Your task to perform on an android device: turn on wifi Image 0: 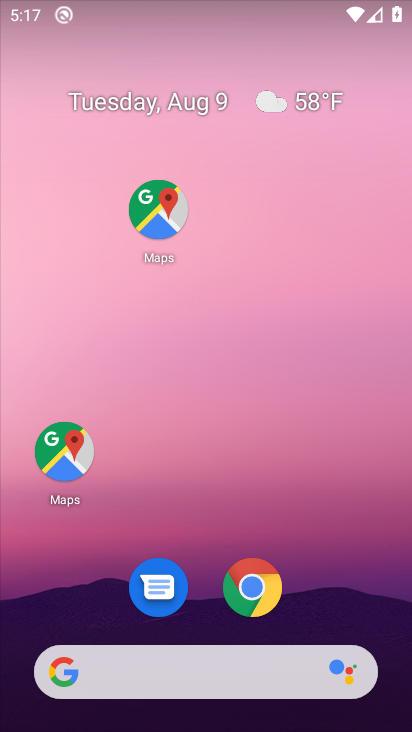
Step 0: drag from (184, 577) to (157, 205)
Your task to perform on an android device: turn on wifi Image 1: 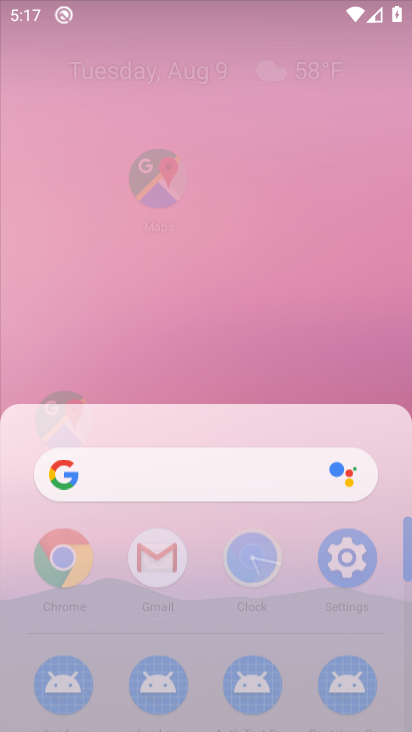
Step 1: drag from (226, 623) to (214, 175)
Your task to perform on an android device: turn on wifi Image 2: 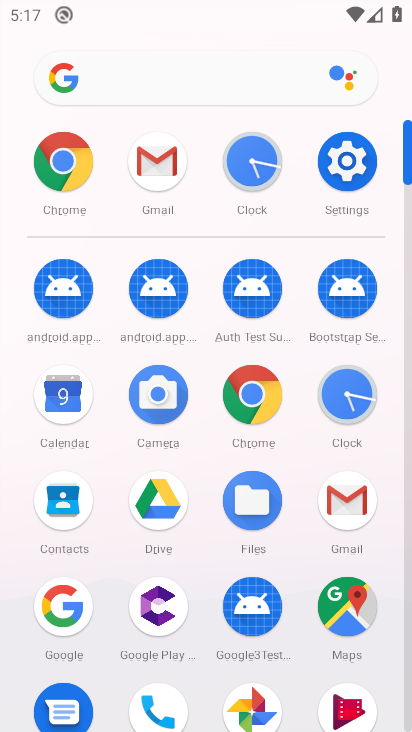
Step 2: drag from (366, 149) to (333, 163)
Your task to perform on an android device: turn on wifi Image 3: 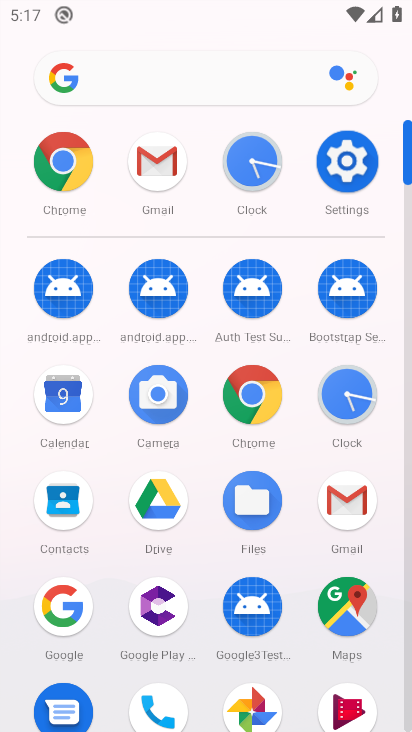
Step 3: click (333, 163)
Your task to perform on an android device: turn on wifi Image 4: 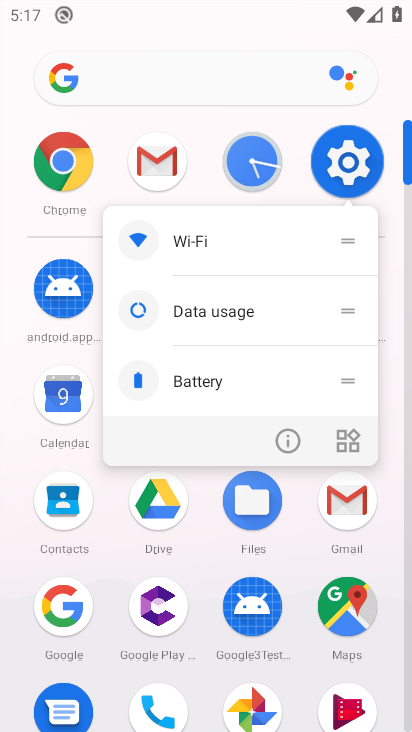
Step 4: click (335, 174)
Your task to perform on an android device: turn on wifi Image 5: 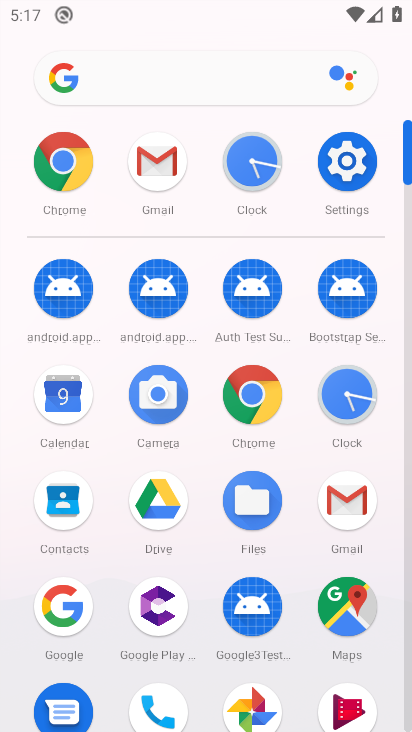
Step 5: click (331, 171)
Your task to perform on an android device: turn on wifi Image 6: 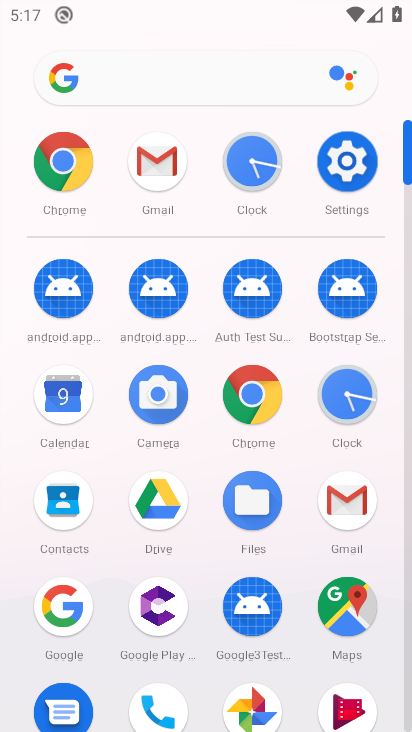
Step 6: click (330, 169)
Your task to perform on an android device: turn on wifi Image 7: 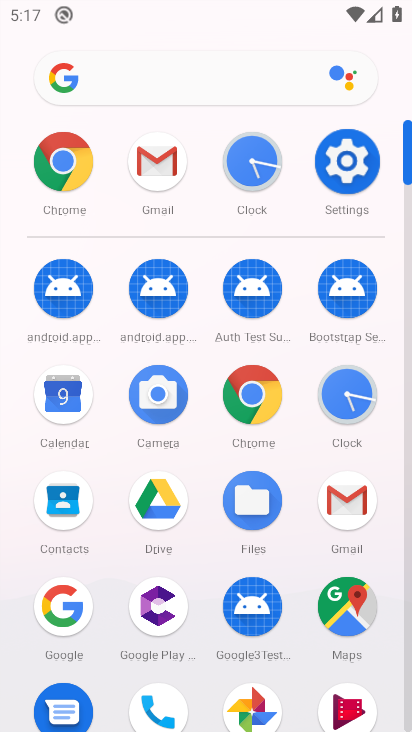
Step 7: click (326, 192)
Your task to perform on an android device: turn on wifi Image 8: 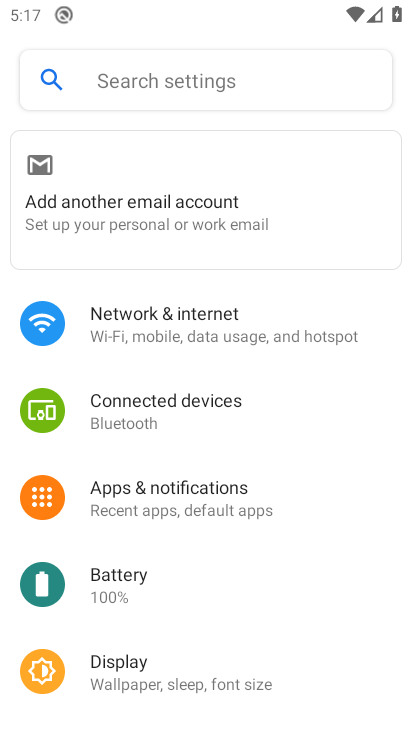
Step 8: click (181, 328)
Your task to perform on an android device: turn on wifi Image 9: 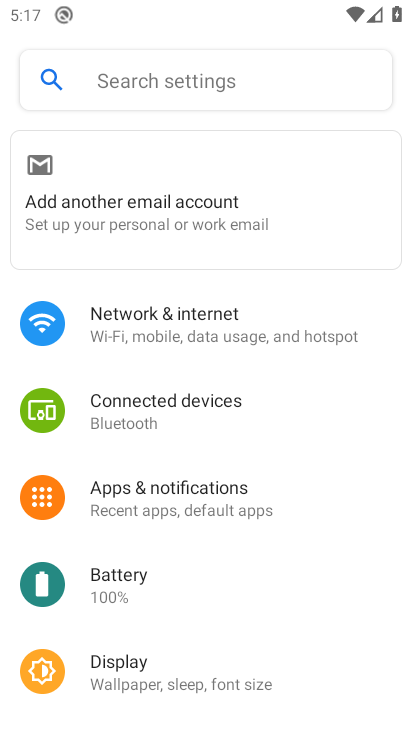
Step 9: click (182, 323)
Your task to perform on an android device: turn on wifi Image 10: 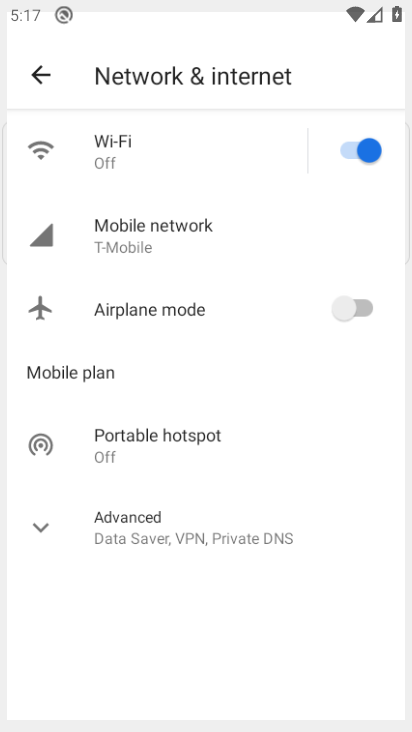
Step 10: click (184, 323)
Your task to perform on an android device: turn on wifi Image 11: 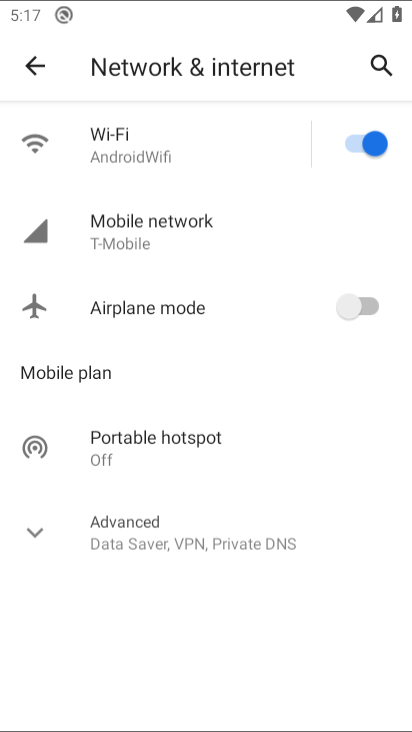
Step 11: click (206, 325)
Your task to perform on an android device: turn on wifi Image 12: 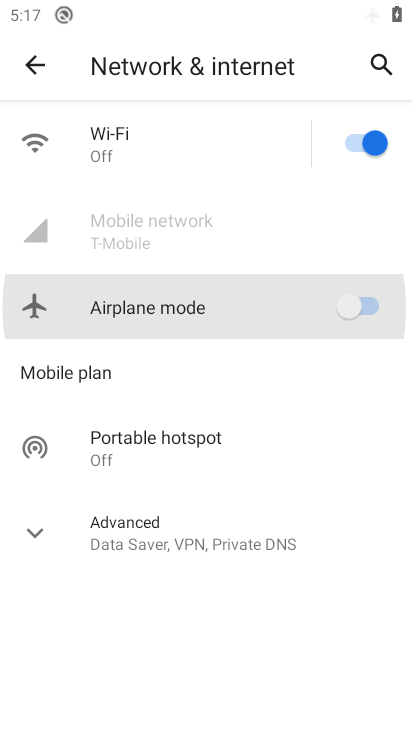
Step 12: click (207, 325)
Your task to perform on an android device: turn on wifi Image 13: 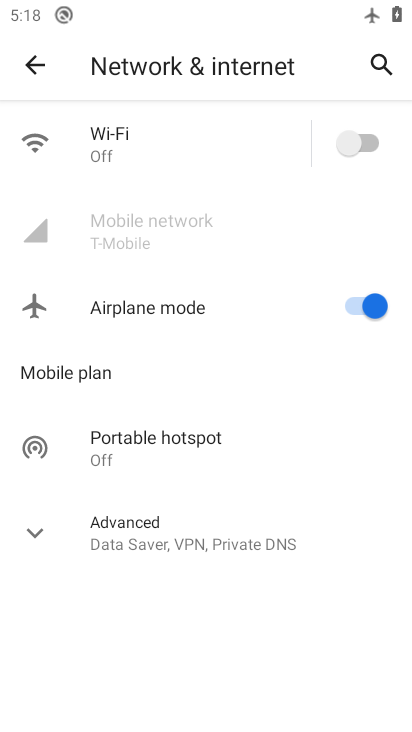
Step 13: click (377, 309)
Your task to perform on an android device: turn on wifi Image 14: 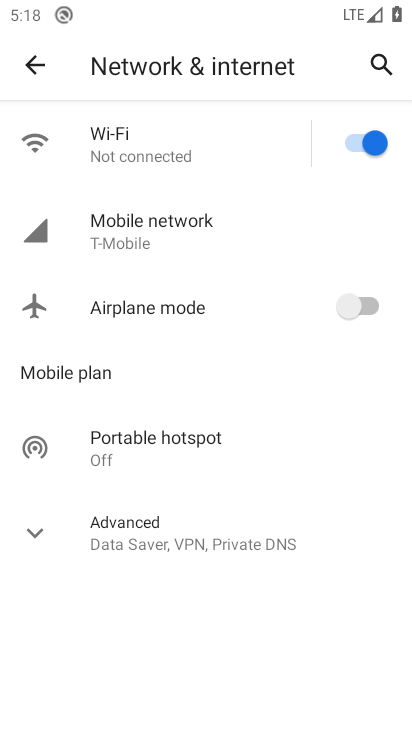
Step 14: task complete